Your task to perform on an android device: see sites visited before in the chrome app Image 0: 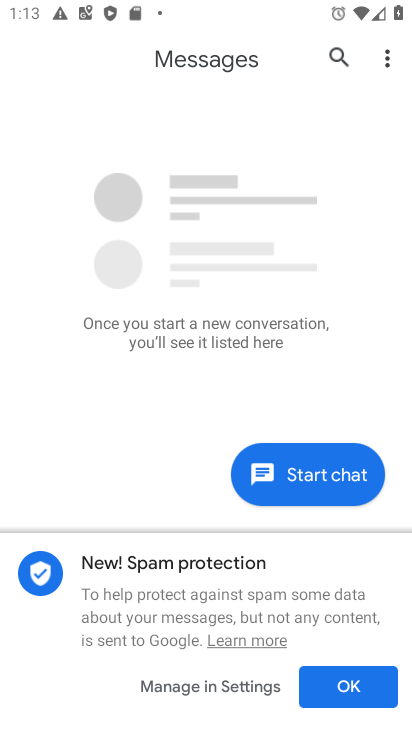
Step 0: press home button
Your task to perform on an android device: see sites visited before in the chrome app Image 1: 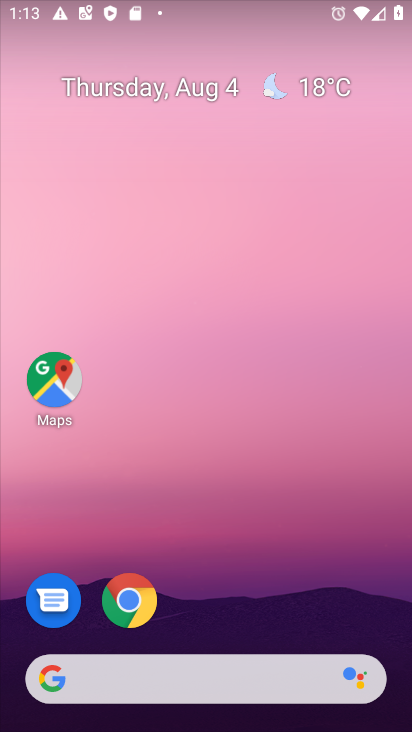
Step 1: click (130, 600)
Your task to perform on an android device: see sites visited before in the chrome app Image 2: 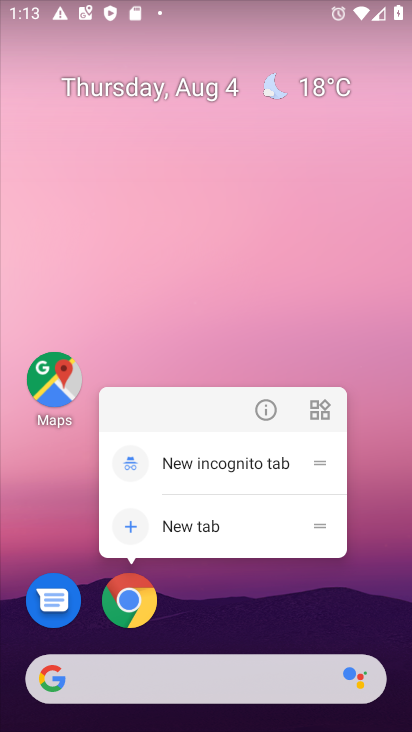
Step 2: click (130, 601)
Your task to perform on an android device: see sites visited before in the chrome app Image 3: 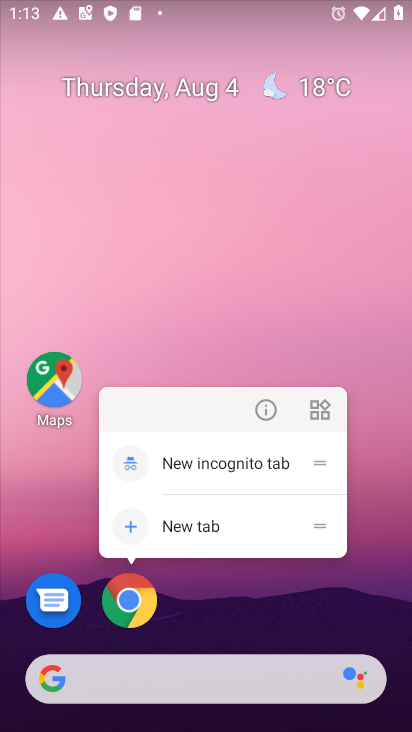
Step 3: click (130, 601)
Your task to perform on an android device: see sites visited before in the chrome app Image 4: 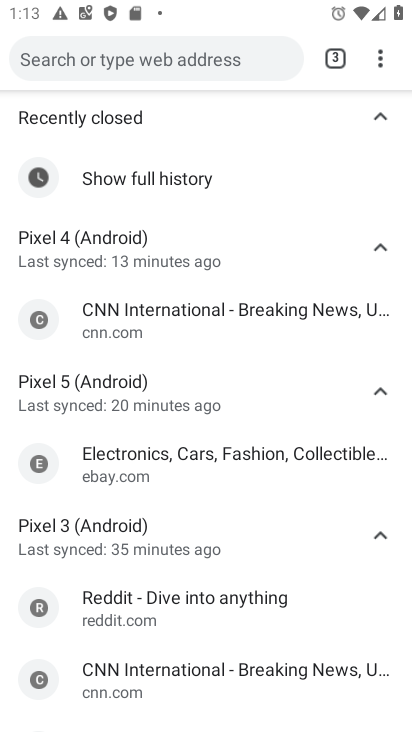
Step 4: task complete